Your task to perform on an android device: empty trash in google photos Image 0: 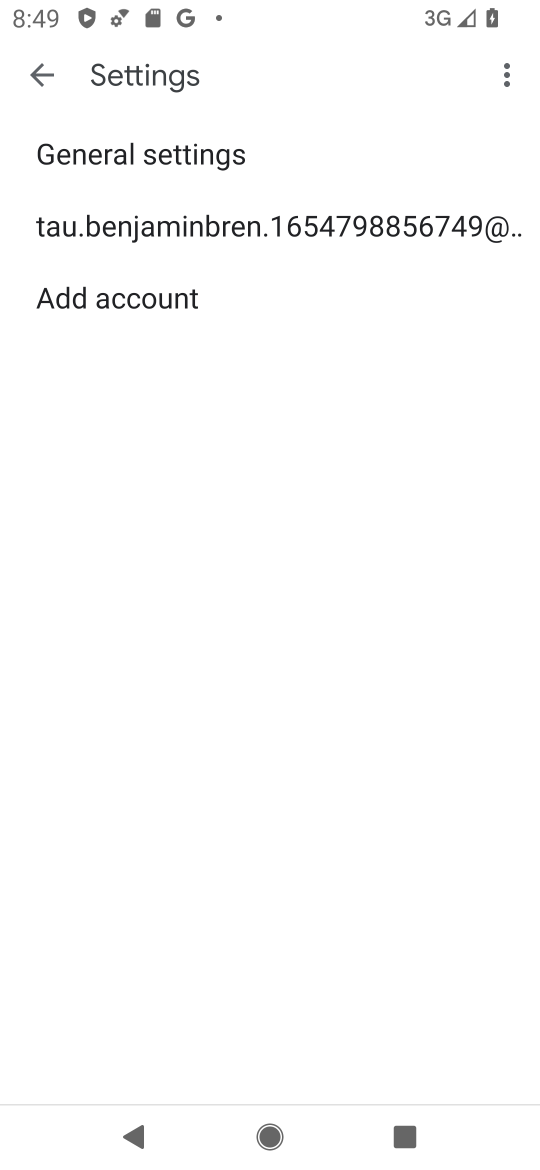
Step 0: press home button
Your task to perform on an android device: empty trash in google photos Image 1: 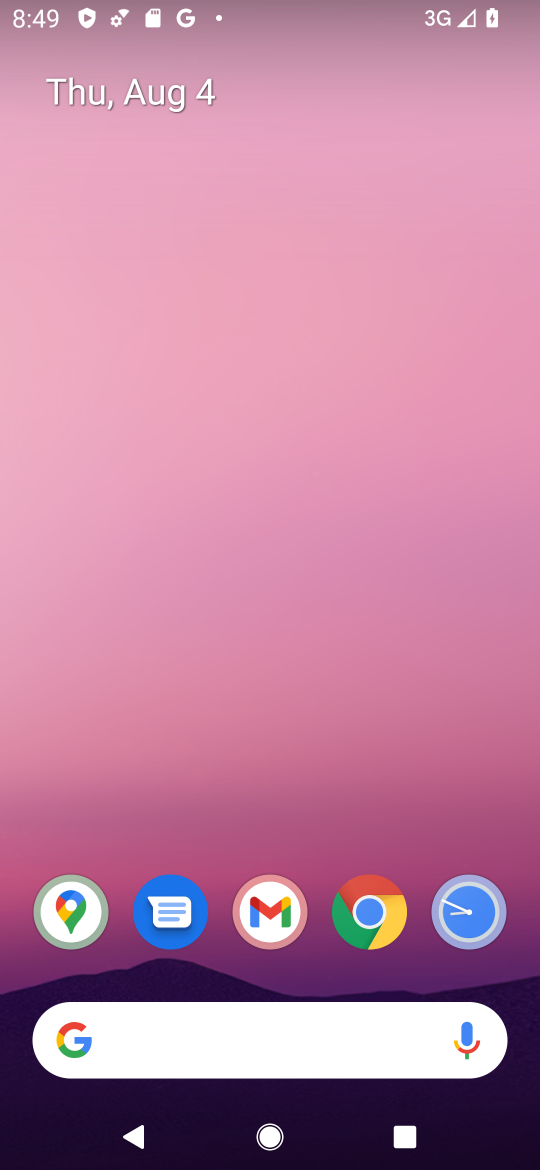
Step 1: drag from (347, 812) to (272, 3)
Your task to perform on an android device: empty trash in google photos Image 2: 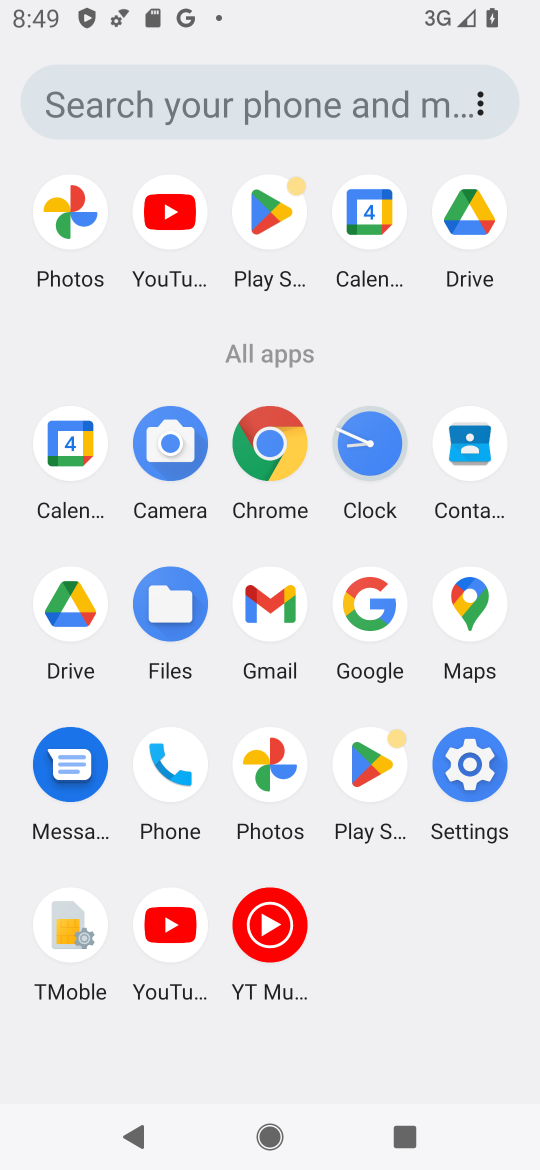
Step 2: click (72, 220)
Your task to perform on an android device: empty trash in google photos Image 3: 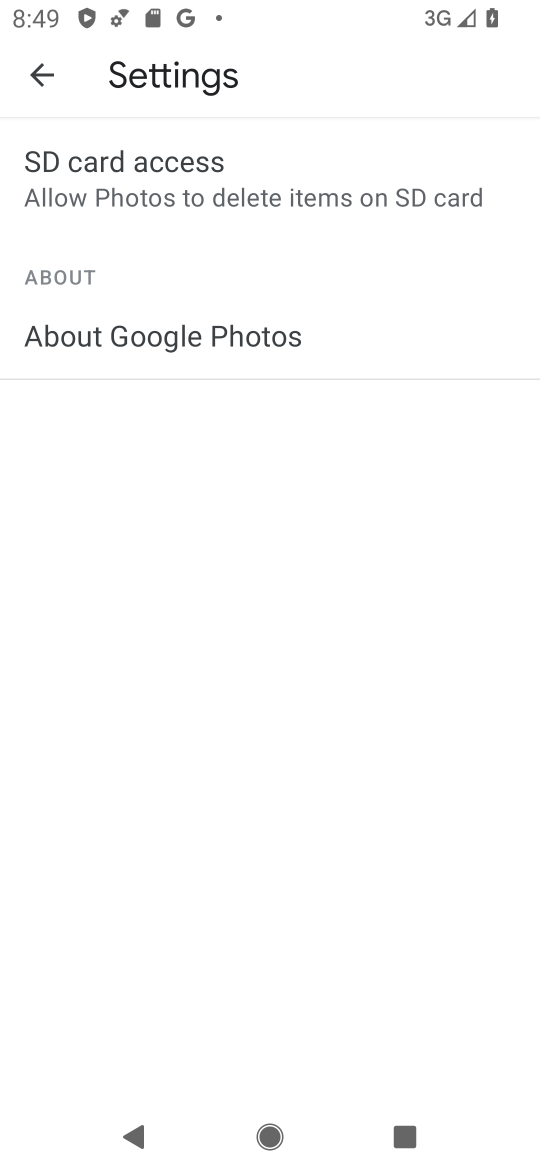
Step 3: click (32, 74)
Your task to perform on an android device: empty trash in google photos Image 4: 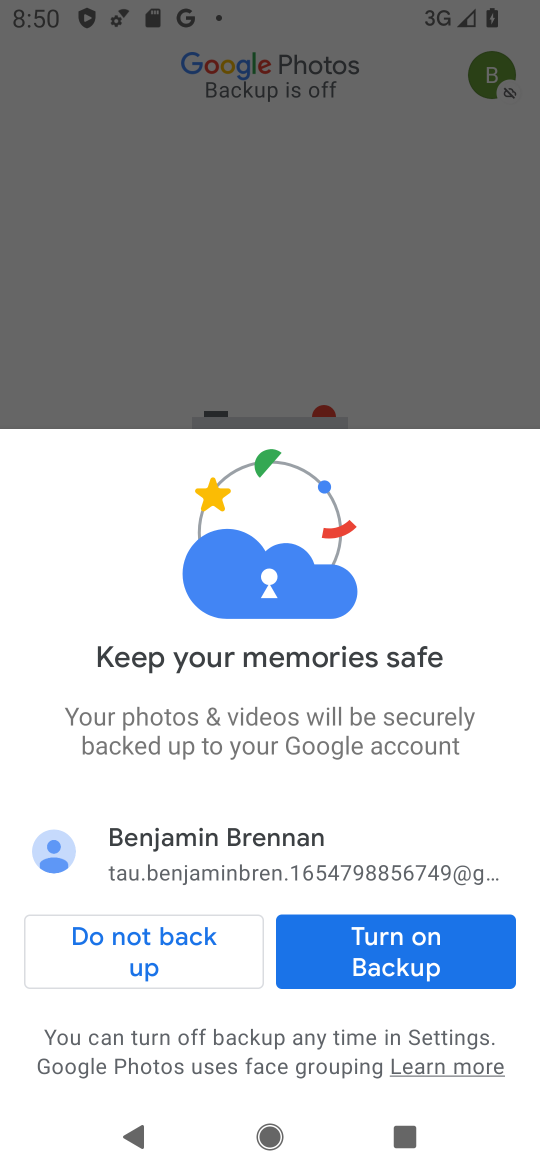
Step 4: click (404, 958)
Your task to perform on an android device: empty trash in google photos Image 5: 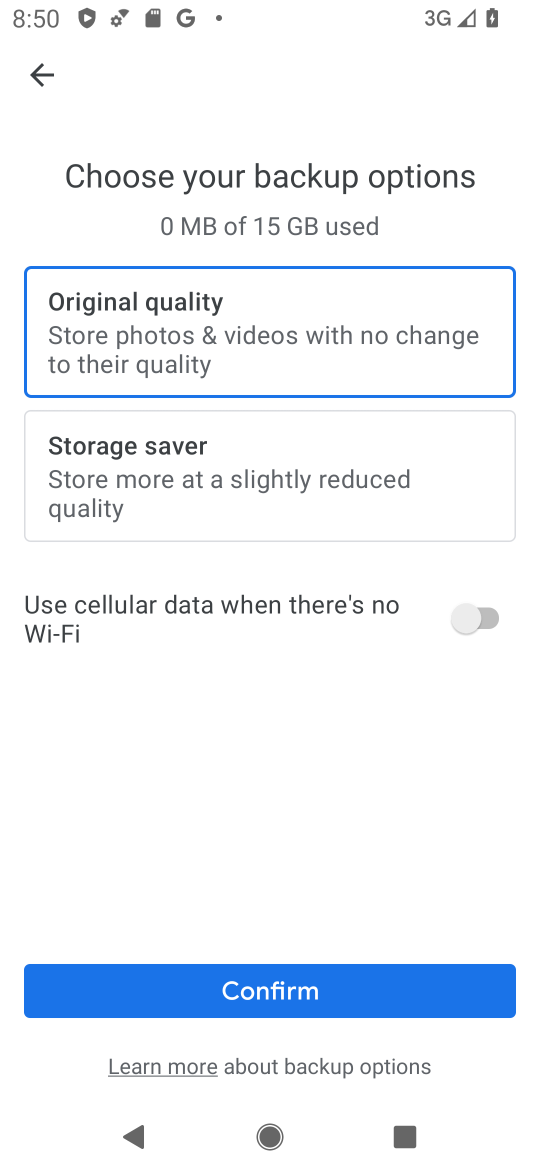
Step 5: click (339, 988)
Your task to perform on an android device: empty trash in google photos Image 6: 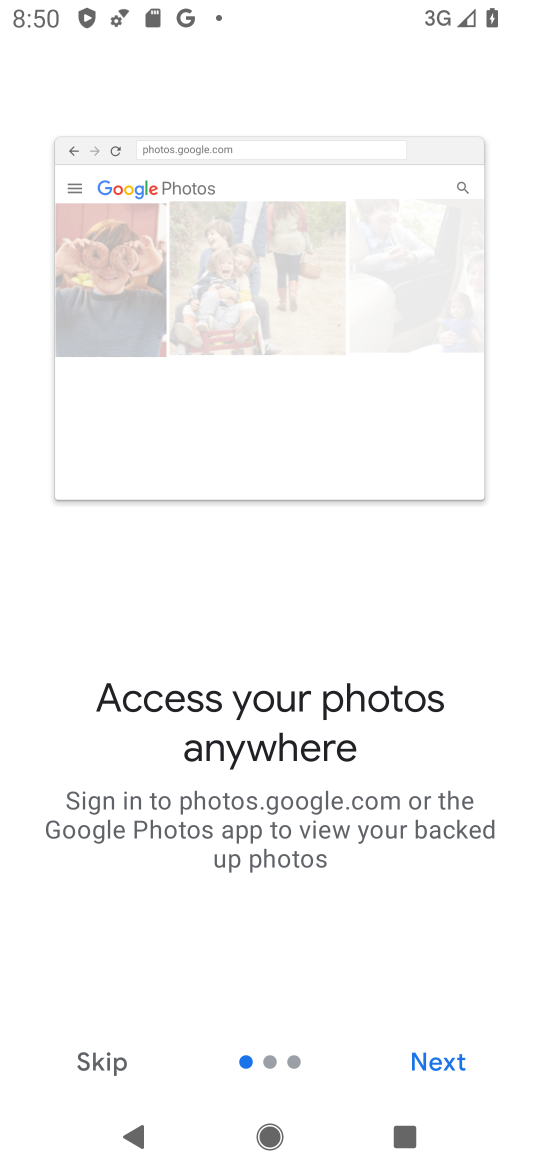
Step 6: click (105, 1070)
Your task to perform on an android device: empty trash in google photos Image 7: 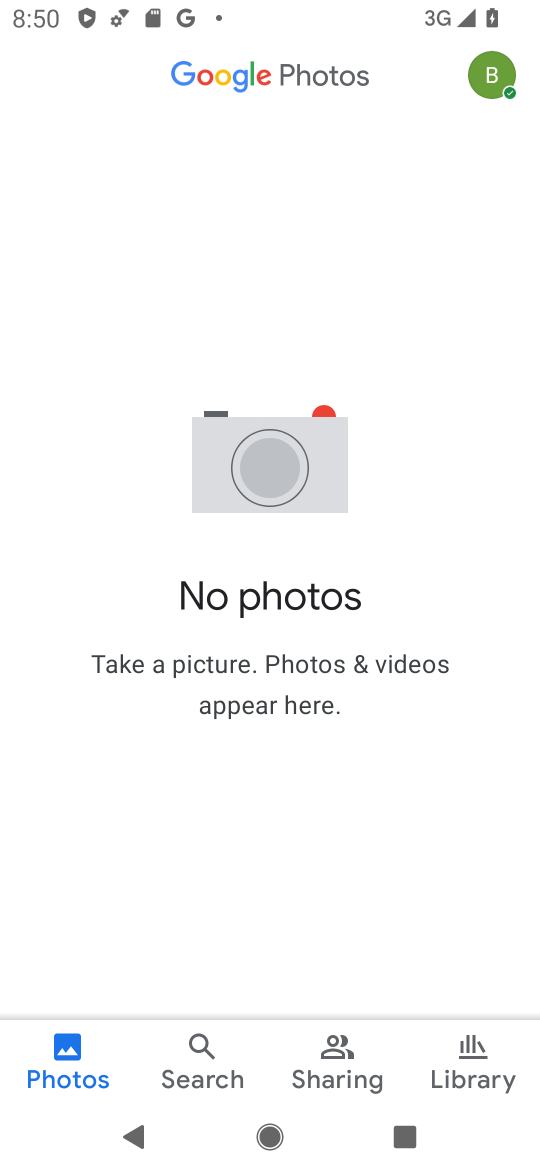
Step 7: click (509, 86)
Your task to perform on an android device: empty trash in google photos Image 8: 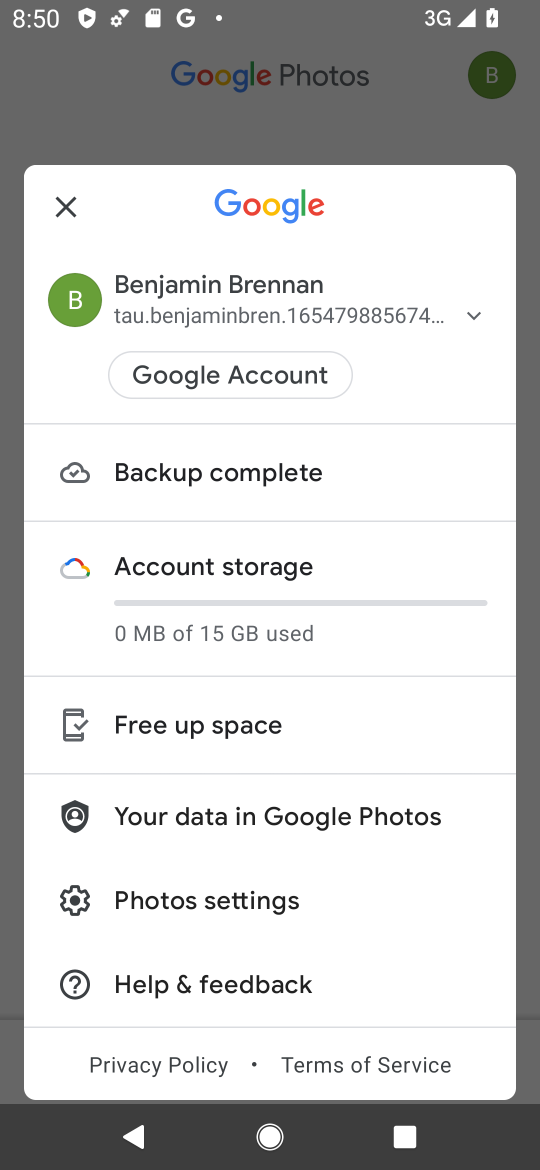
Step 8: click (262, 713)
Your task to perform on an android device: empty trash in google photos Image 9: 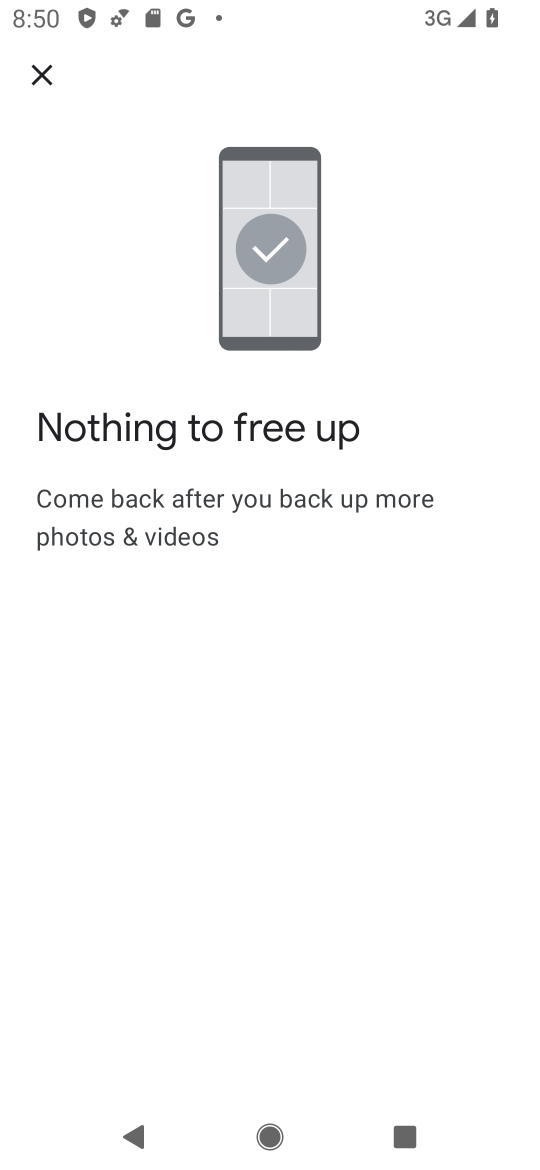
Step 9: task complete